Your task to perform on an android device: Search for pizza restaurants on Maps Image 0: 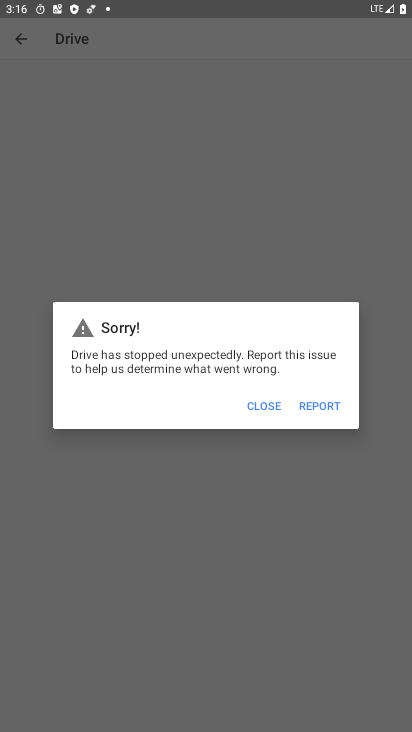
Step 0: press home button
Your task to perform on an android device: Search for pizza restaurants on Maps Image 1: 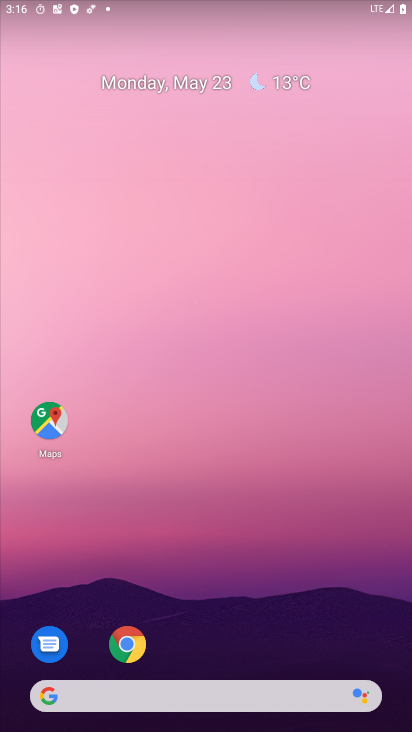
Step 1: click (47, 415)
Your task to perform on an android device: Search for pizza restaurants on Maps Image 2: 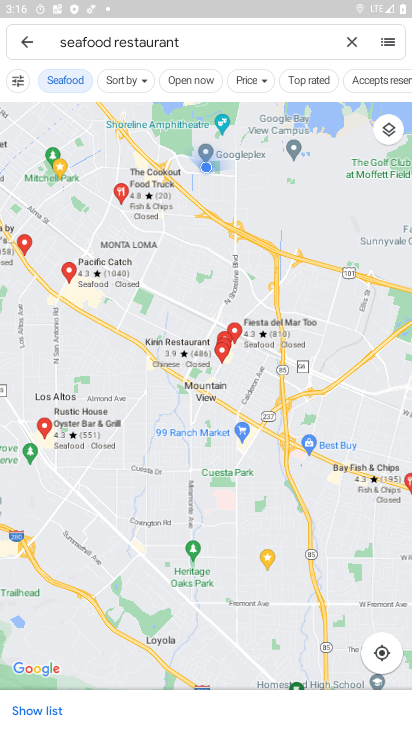
Step 2: click (347, 46)
Your task to perform on an android device: Search for pizza restaurants on Maps Image 3: 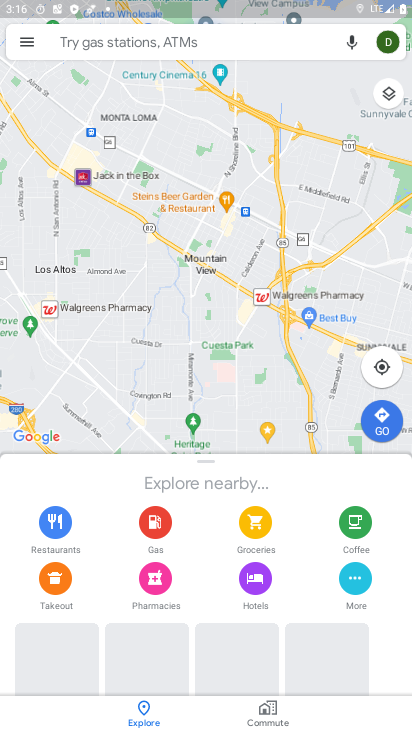
Step 3: click (121, 46)
Your task to perform on an android device: Search for pizza restaurants on Maps Image 4: 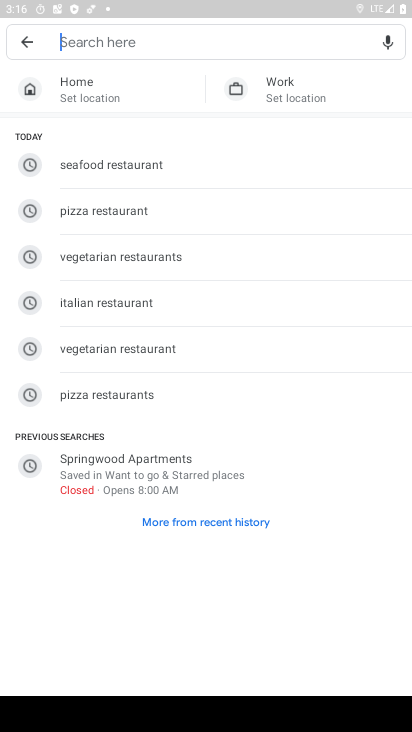
Step 4: click (100, 200)
Your task to perform on an android device: Search for pizza restaurants on Maps Image 5: 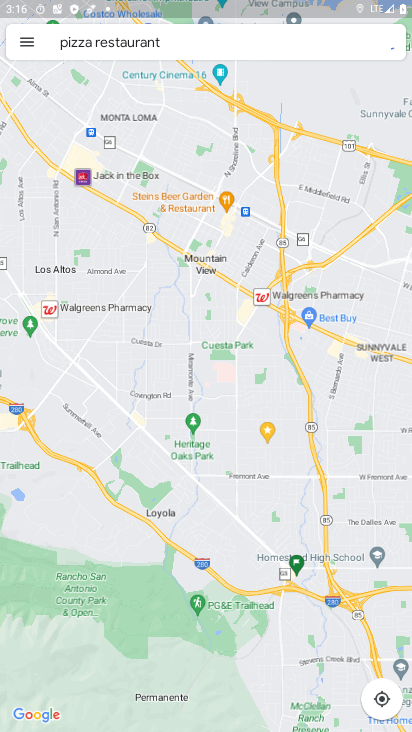
Step 5: task complete